Your task to perform on an android device: open app "Airtel Thanks" (install if not already installed) and enter user name: "acclaimed@inbox.com" and password: "dichotomize" Image 0: 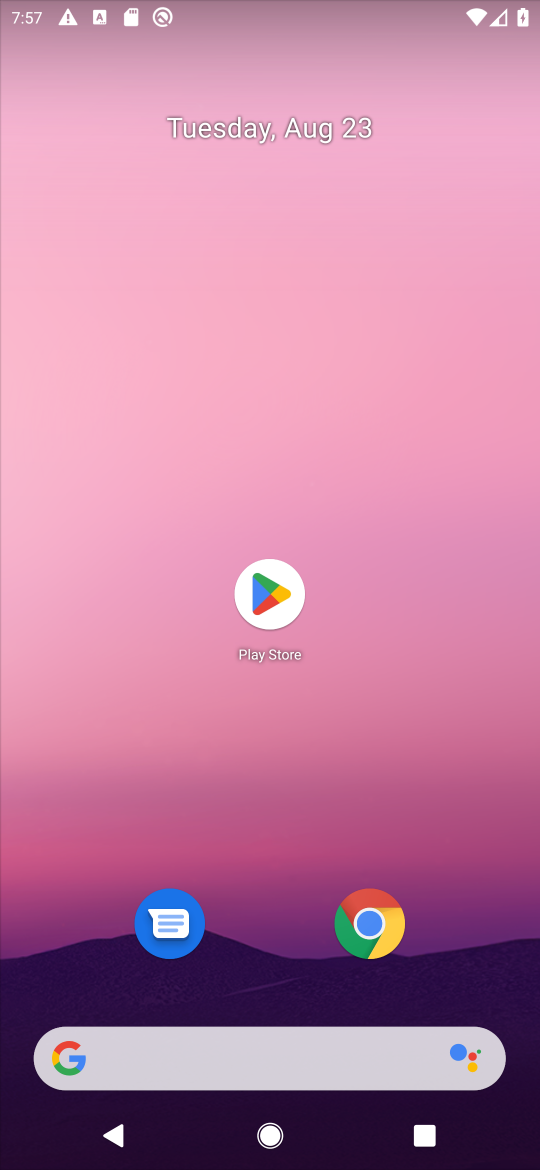
Step 0: click (264, 589)
Your task to perform on an android device: open app "Airtel Thanks" (install if not already installed) and enter user name: "acclaimed@inbox.com" and password: "dichotomize" Image 1: 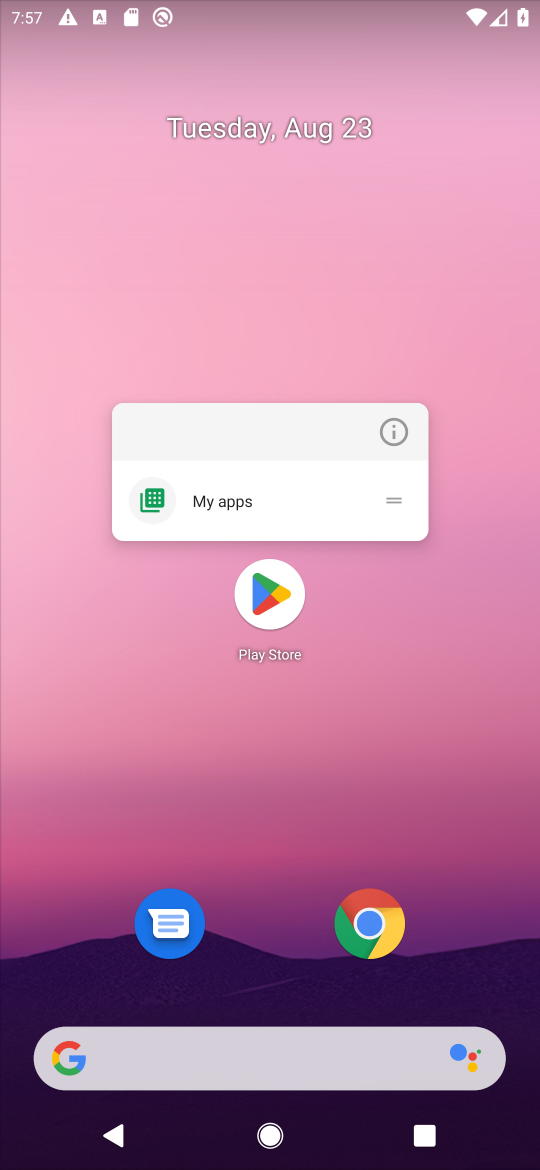
Step 1: click (260, 596)
Your task to perform on an android device: open app "Airtel Thanks" (install if not already installed) and enter user name: "acclaimed@inbox.com" and password: "dichotomize" Image 2: 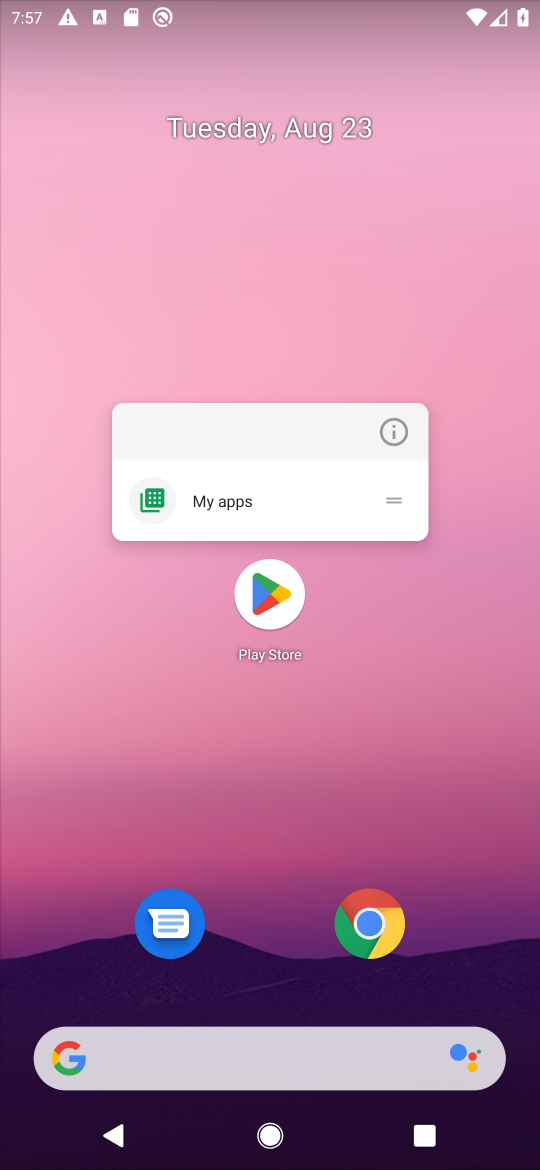
Step 2: click (270, 596)
Your task to perform on an android device: open app "Airtel Thanks" (install if not already installed) and enter user name: "acclaimed@inbox.com" and password: "dichotomize" Image 3: 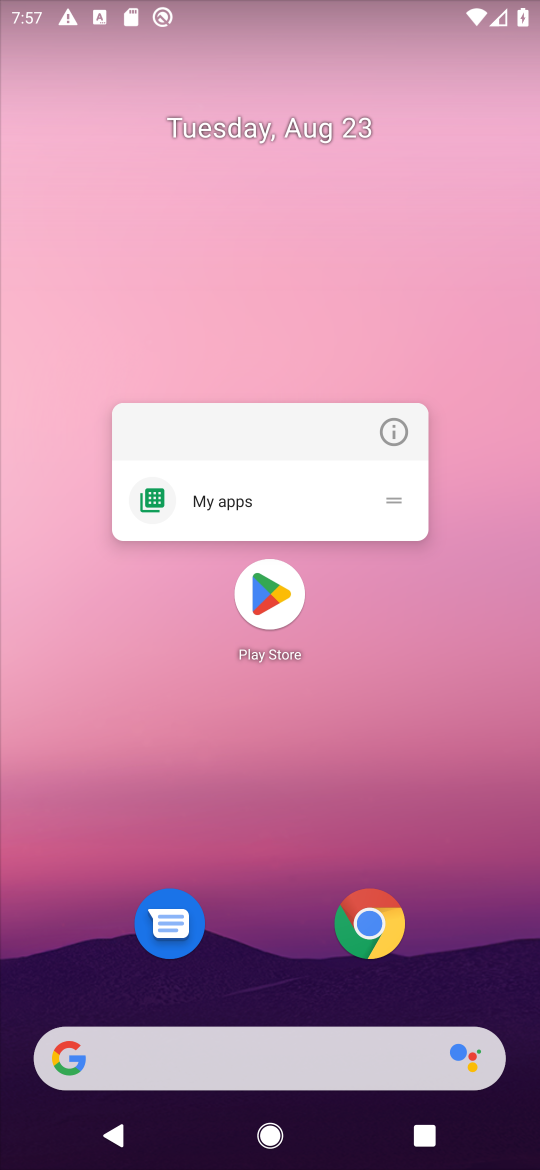
Step 3: click (270, 596)
Your task to perform on an android device: open app "Airtel Thanks" (install if not already installed) and enter user name: "acclaimed@inbox.com" and password: "dichotomize" Image 4: 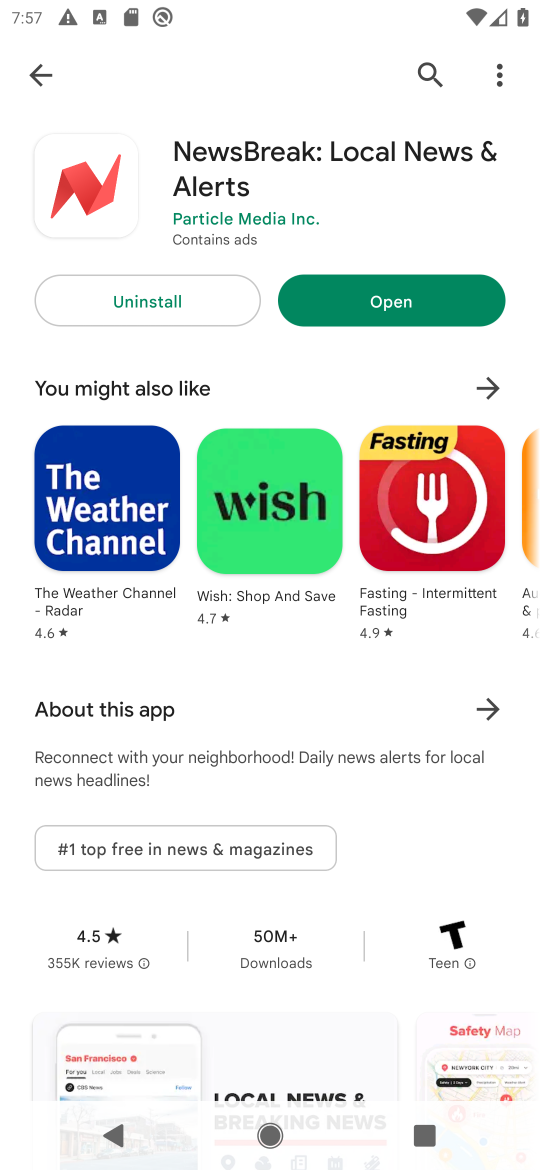
Step 4: click (424, 68)
Your task to perform on an android device: open app "Airtel Thanks" (install if not already installed) and enter user name: "acclaimed@inbox.com" and password: "dichotomize" Image 5: 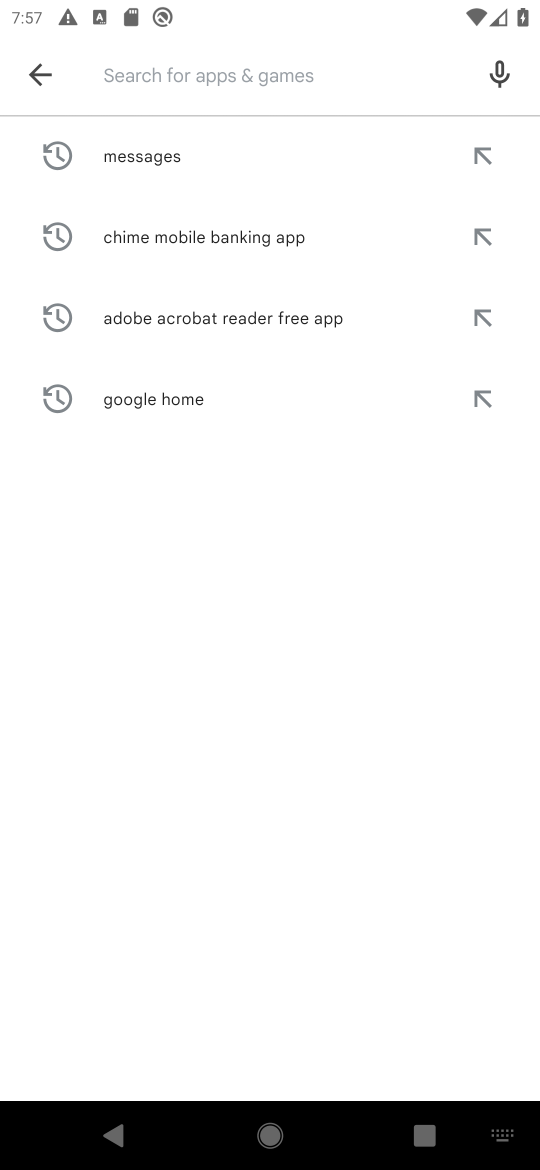
Step 5: type "Airtel Thanks"
Your task to perform on an android device: open app "Airtel Thanks" (install if not already installed) and enter user name: "acclaimed@inbox.com" and password: "dichotomize" Image 6: 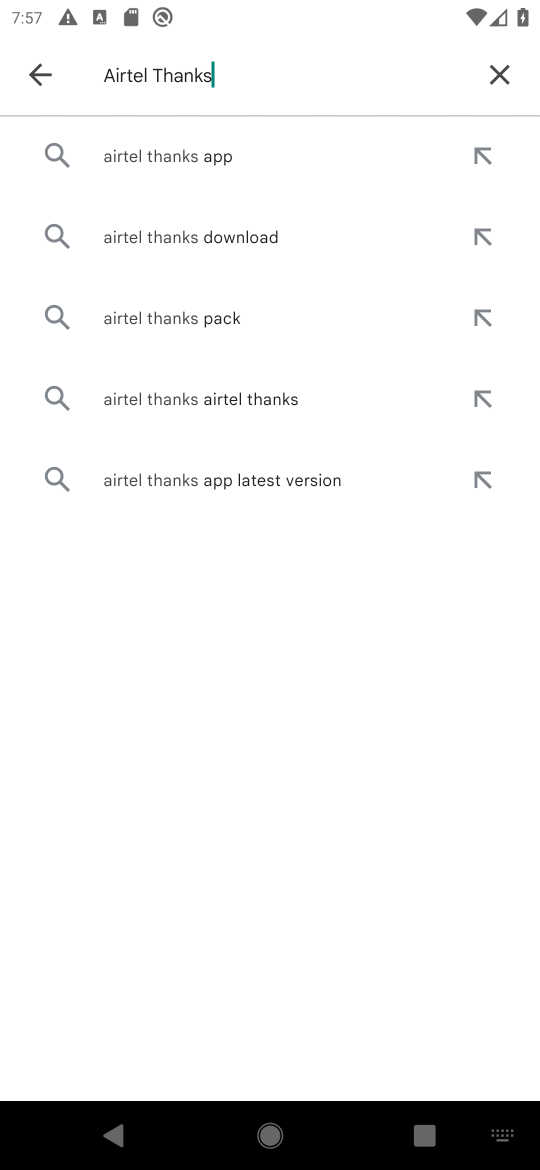
Step 6: click (180, 157)
Your task to perform on an android device: open app "Airtel Thanks" (install if not already installed) and enter user name: "acclaimed@inbox.com" and password: "dichotomize" Image 7: 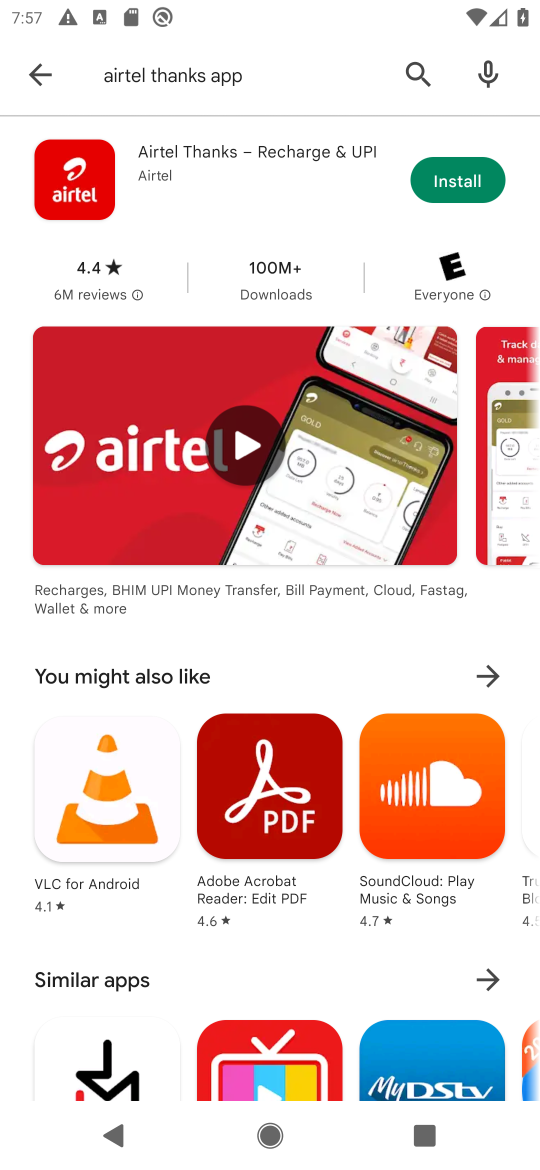
Step 7: click (471, 176)
Your task to perform on an android device: open app "Airtel Thanks" (install if not already installed) and enter user name: "acclaimed@inbox.com" and password: "dichotomize" Image 8: 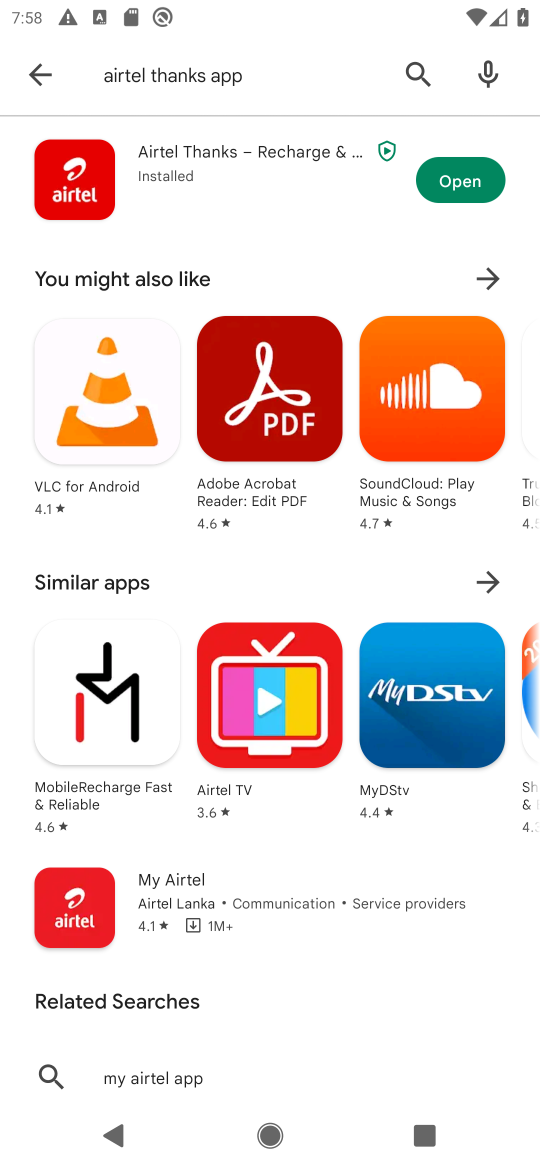
Step 8: click (452, 183)
Your task to perform on an android device: open app "Airtel Thanks" (install if not already installed) and enter user name: "acclaimed@inbox.com" and password: "dichotomize" Image 9: 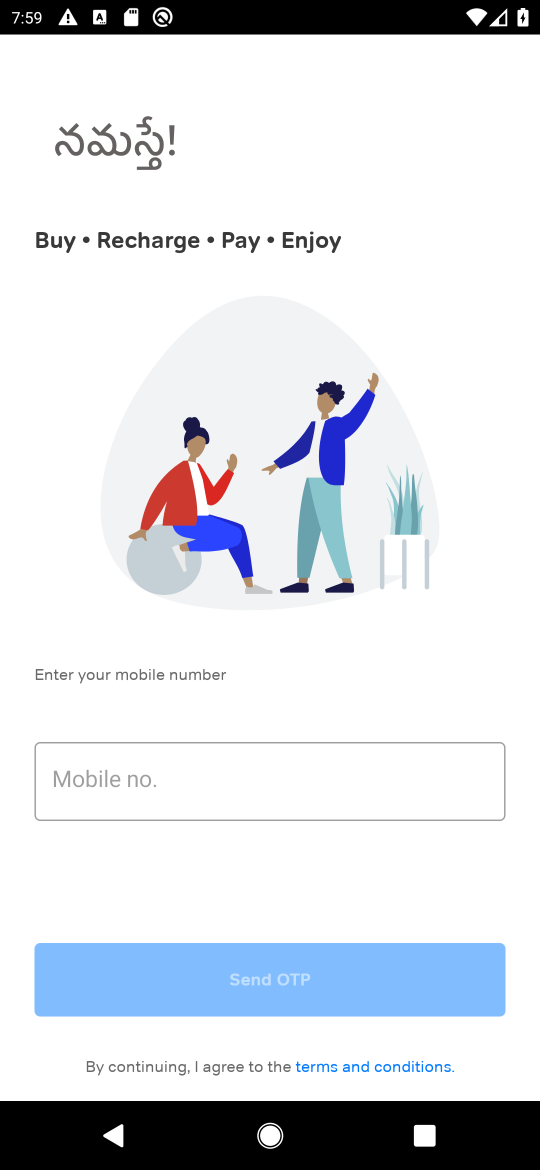
Step 9: task complete